Your task to perform on an android device: What's the weather? Image 0: 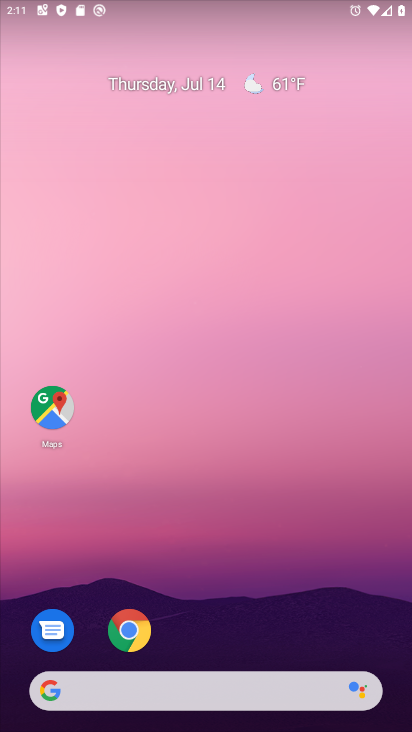
Step 0: click (117, 693)
Your task to perform on an android device: What's the weather? Image 1: 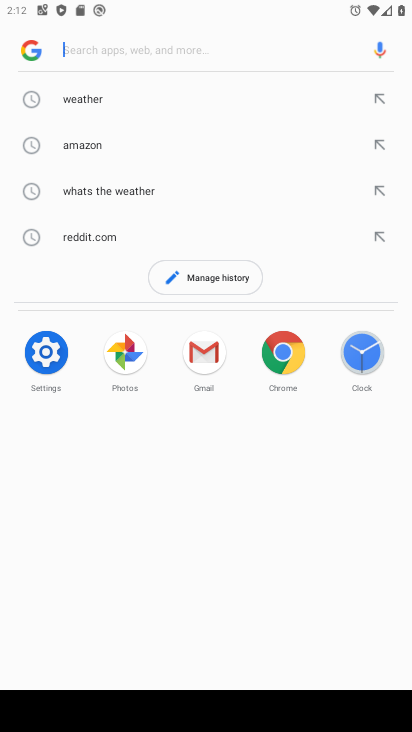
Step 1: click (92, 91)
Your task to perform on an android device: What's the weather? Image 2: 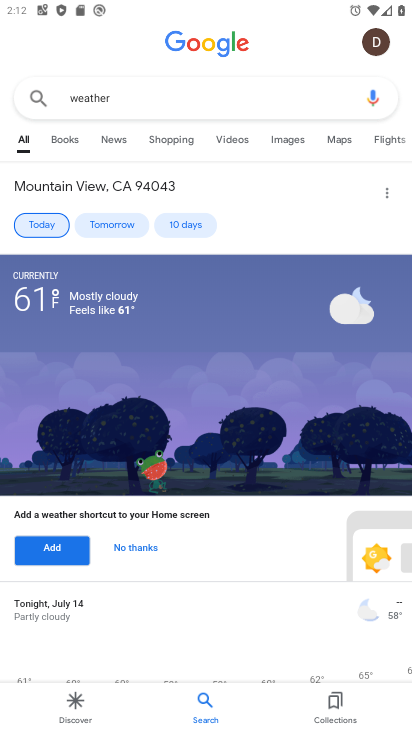
Step 2: task complete